Your task to perform on an android device: change the upload size in google photos Image 0: 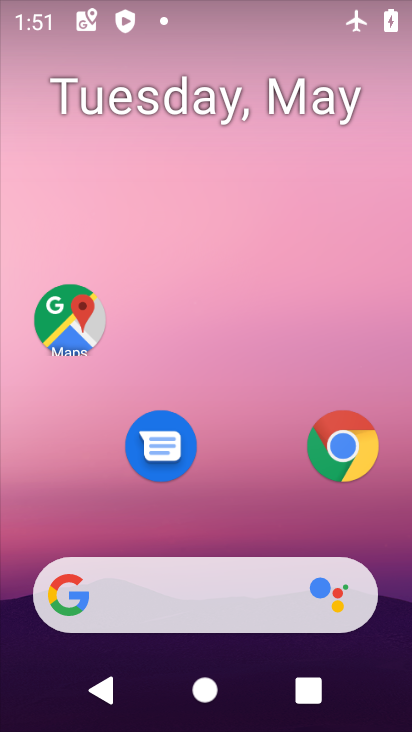
Step 0: drag from (210, 538) to (139, 37)
Your task to perform on an android device: change the upload size in google photos Image 1: 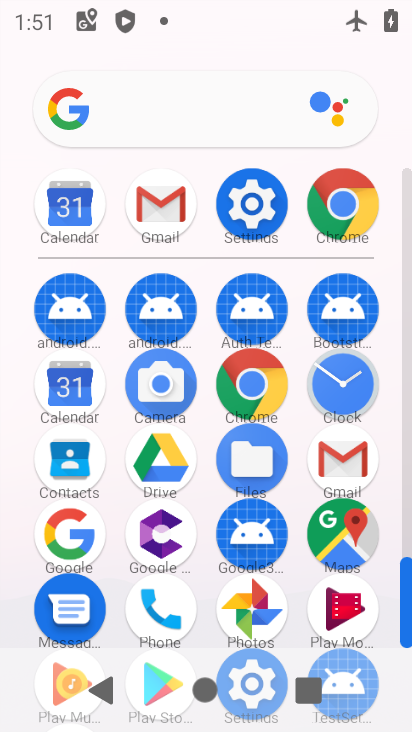
Step 1: click (260, 606)
Your task to perform on an android device: change the upload size in google photos Image 2: 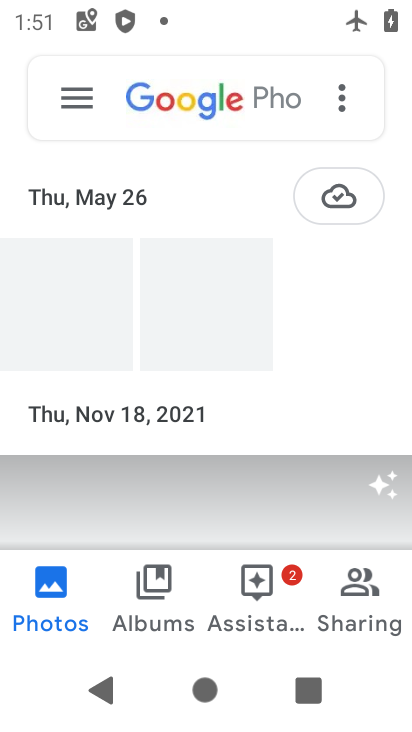
Step 2: click (66, 93)
Your task to perform on an android device: change the upload size in google photos Image 3: 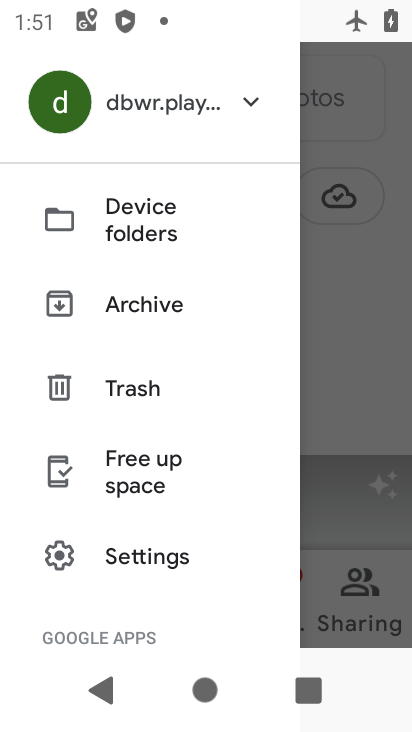
Step 3: click (156, 557)
Your task to perform on an android device: change the upload size in google photos Image 4: 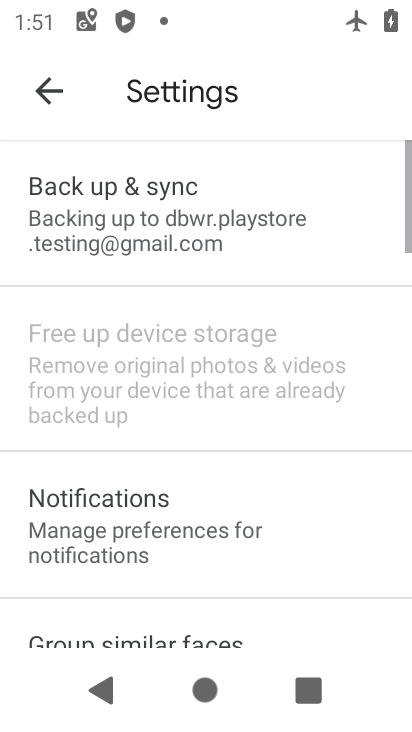
Step 4: drag from (175, 543) to (126, 158)
Your task to perform on an android device: change the upload size in google photos Image 5: 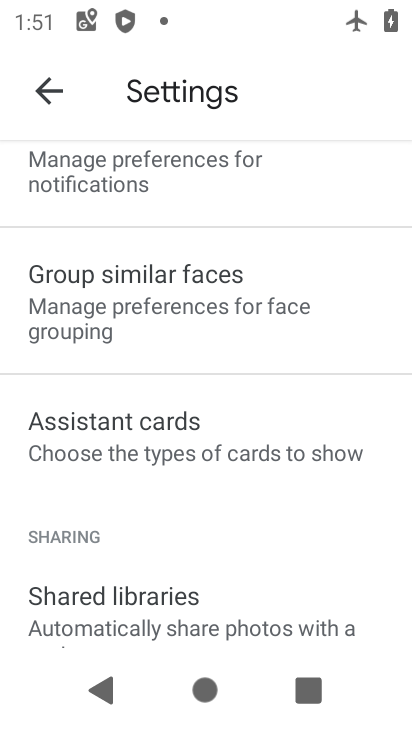
Step 5: drag from (148, 482) to (93, 111)
Your task to perform on an android device: change the upload size in google photos Image 6: 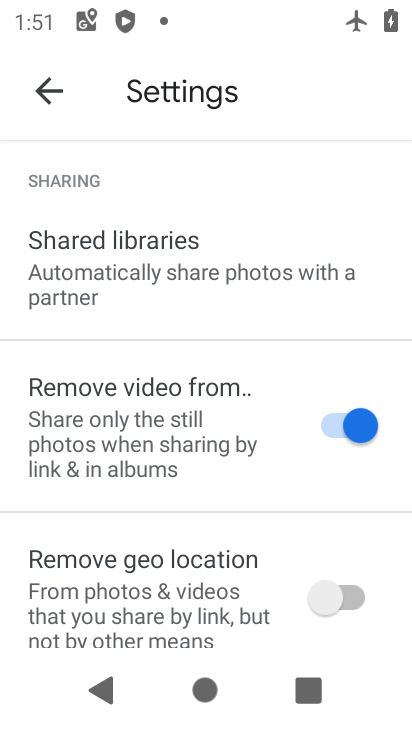
Step 6: click (52, 90)
Your task to perform on an android device: change the upload size in google photos Image 7: 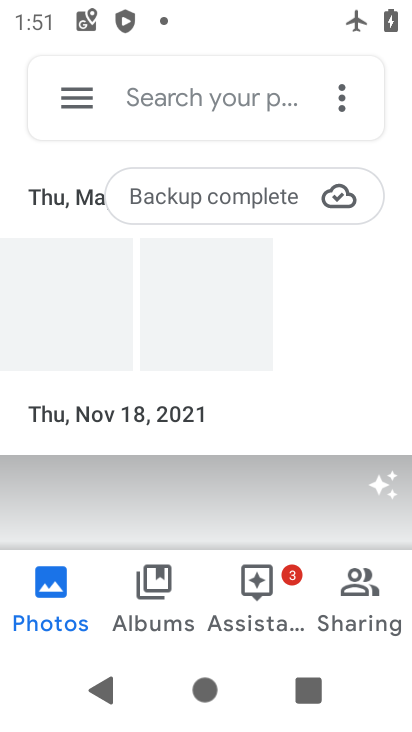
Step 7: click (66, 87)
Your task to perform on an android device: change the upload size in google photos Image 8: 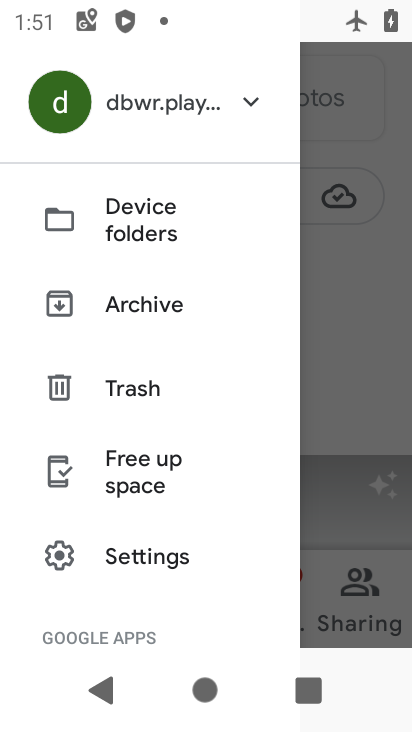
Step 8: click (155, 567)
Your task to perform on an android device: change the upload size in google photos Image 9: 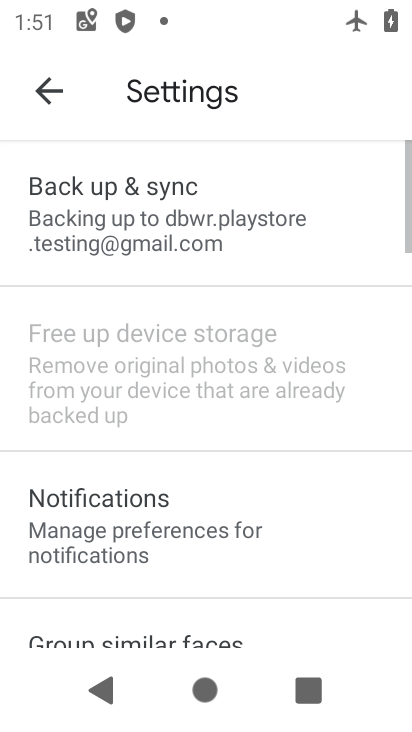
Step 9: click (151, 243)
Your task to perform on an android device: change the upload size in google photos Image 10: 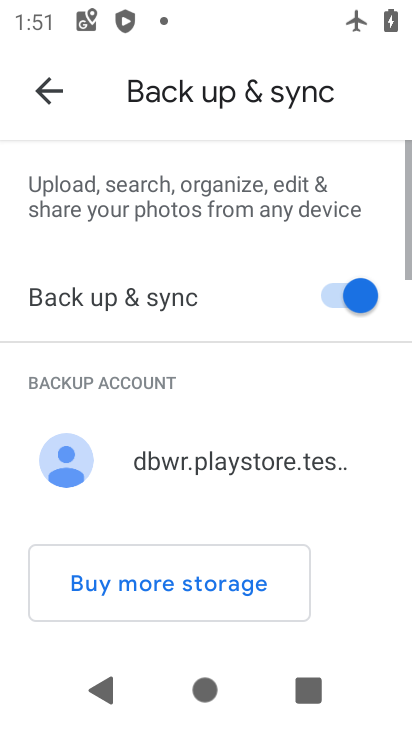
Step 10: drag from (185, 518) to (141, 77)
Your task to perform on an android device: change the upload size in google photos Image 11: 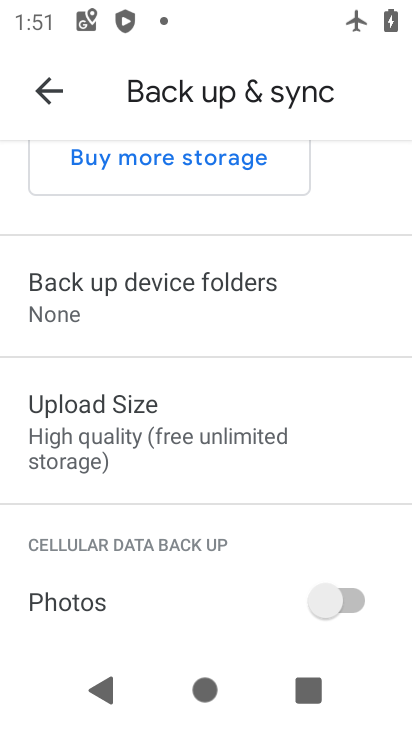
Step 11: click (169, 447)
Your task to perform on an android device: change the upload size in google photos Image 12: 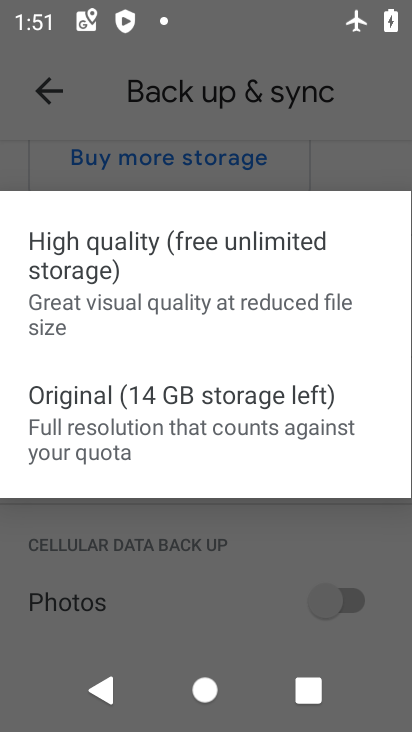
Step 12: click (160, 503)
Your task to perform on an android device: change the upload size in google photos Image 13: 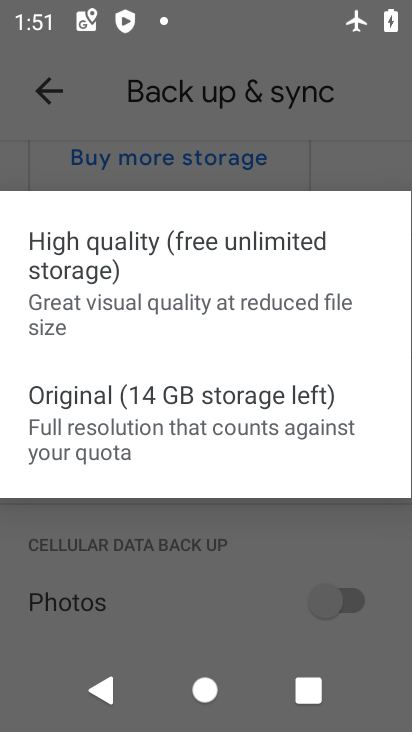
Step 13: click (124, 428)
Your task to perform on an android device: change the upload size in google photos Image 14: 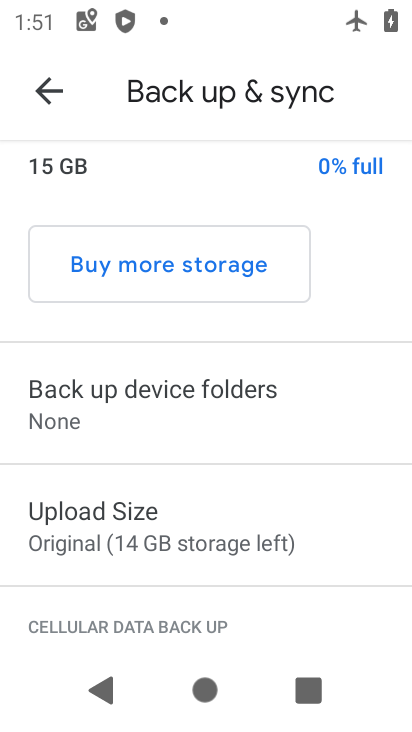
Step 14: task complete